Your task to perform on an android device: What is the capital of Italy? Image 0: 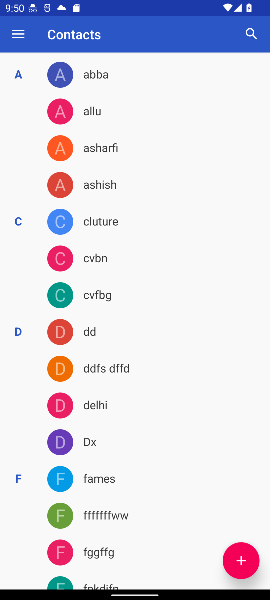
Step 0: press home button
Your task to perform on an android device: What is the capital of Italy? Image 1: 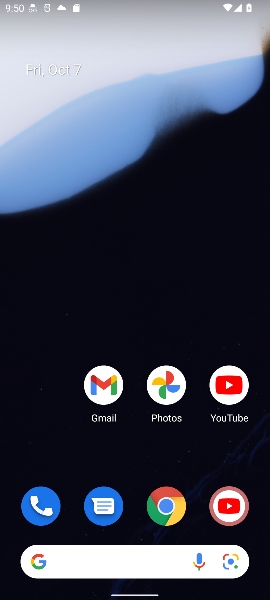
Step 1: click (163, 509)
Your task to perform on an android device: What is the capital of Italy? Image 2: 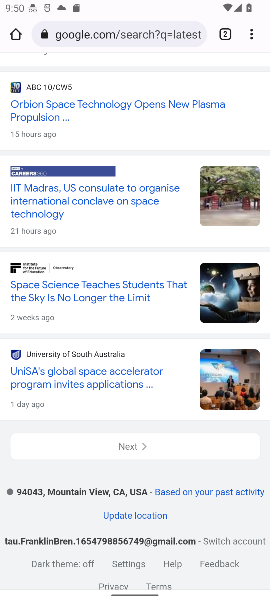
Step 2: click (154, 27)
Your task to perform on an android device: What is the capital of Italy? Image 3: 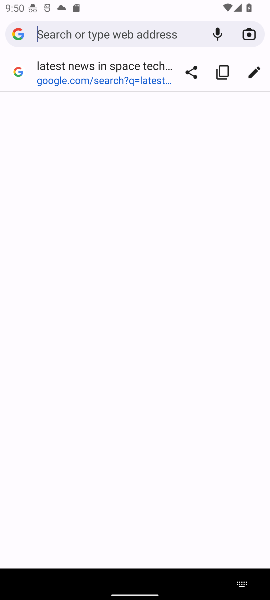
Step 3: type "capital of Italy"
Your task to perform on an android device: What is the capital of Italy? Image 4: 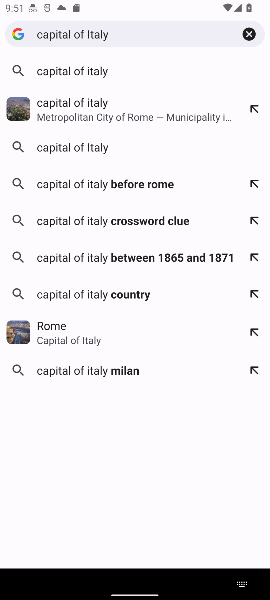
Step 4: click (74, 74)
Your task to perform on an android device: What is the capital of Italy? Image 5: 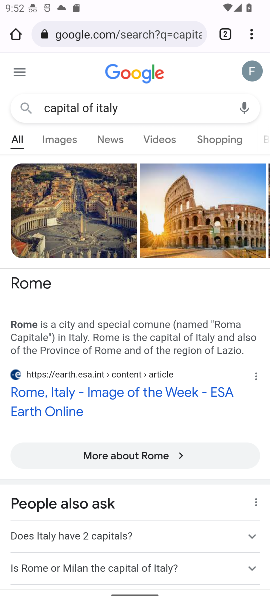
Step 5: task complete